Your task to perform on an android device: Go to Google Image 0: 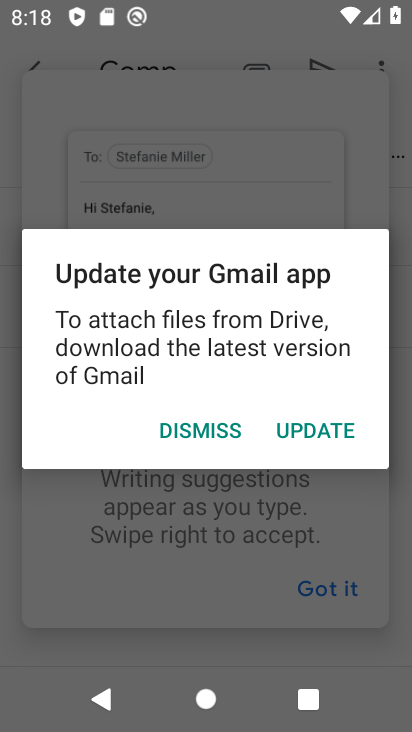
Step 0: press home button
Your task to perform on an android device: Go to Google Image 1: 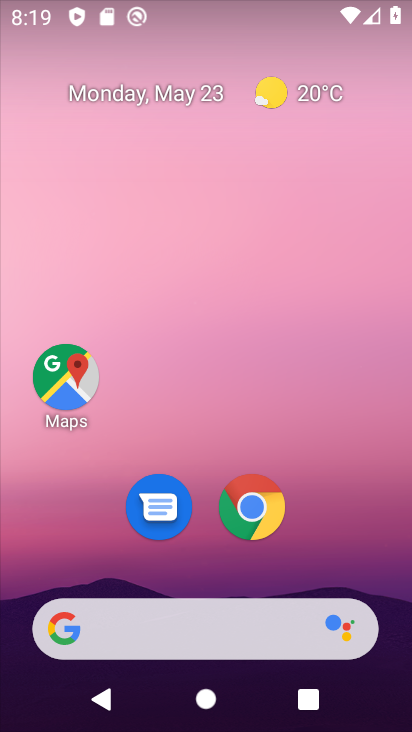
Step 1: drag from (380, 597) to (318, 12)
Your task to perform on an android device: Go to Google Image 2: 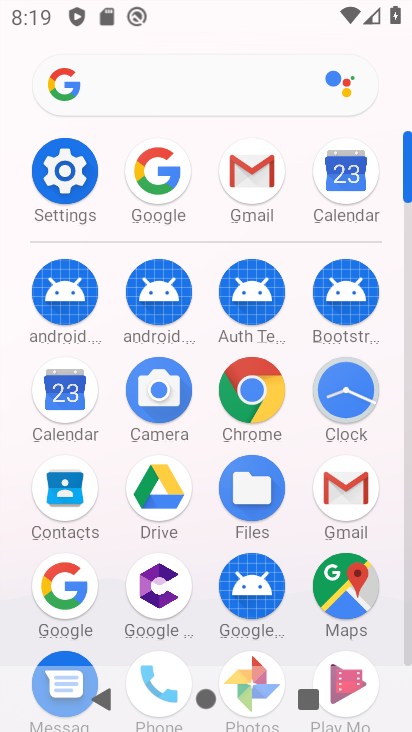
Step 2: click (70, 591)
Your task to perform on an android device: Go to Google Image 3: 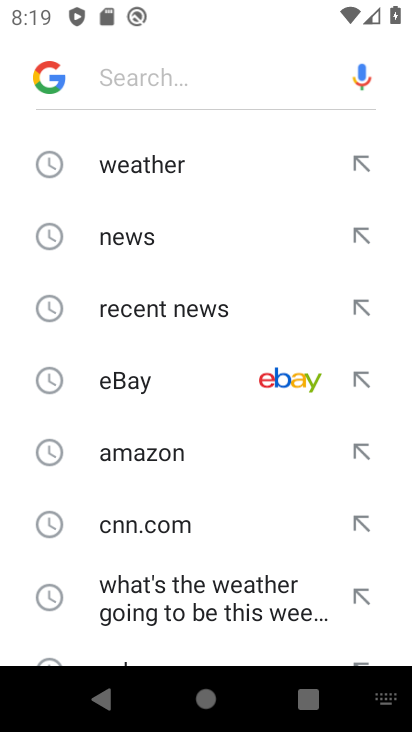
Step 3: task complete